Your task to perform on an android device: Open eBay Image 0: 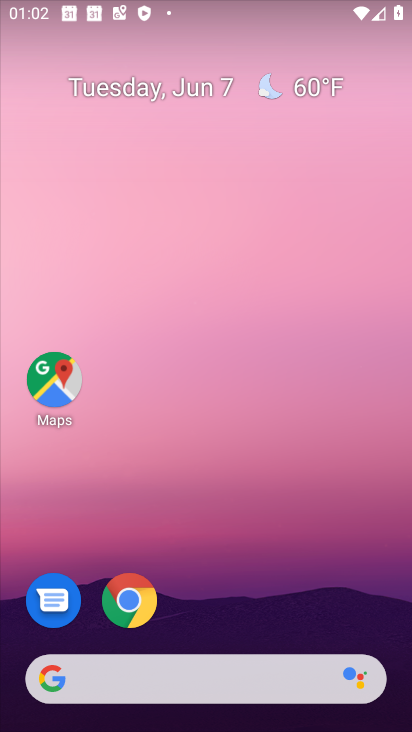
Step 0: click (133, 597)
Your task to perform on an android device: Open eBay Image 1: 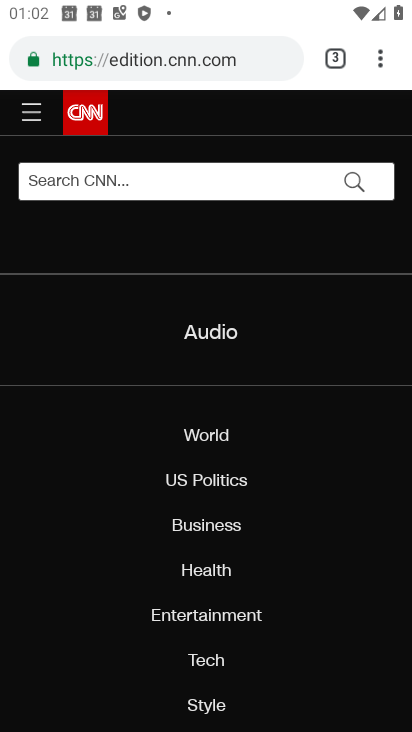
Step 1: click (381, 64)
Your task to perform on an android device: Open eBay Image 2: 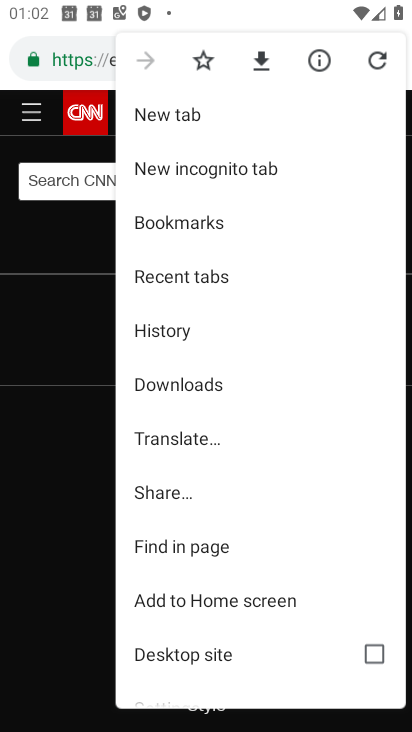
Step 2: click (180, 114)
Your task to perform on an android device: Open eBay Image 3: 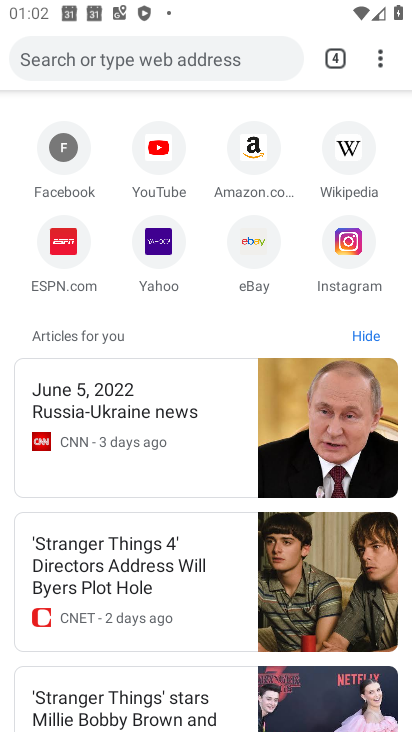
Step 3: click (253, 244)
Your task to perform on an android device: Open eBay Image 4: 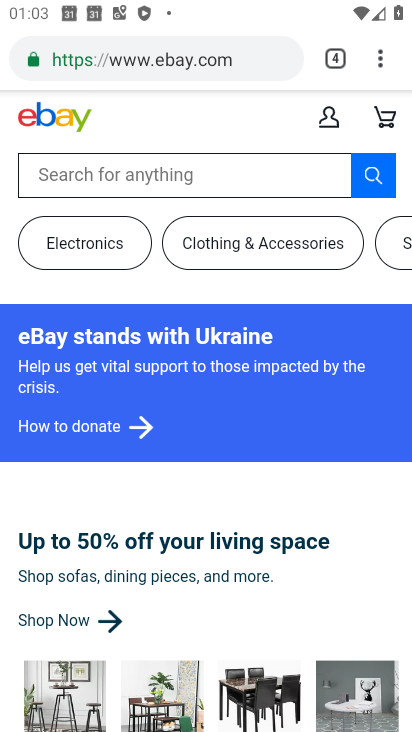
Step 4: task complete